Your task to perform on an android device: move an email to a new category in the gmail app Image 0: 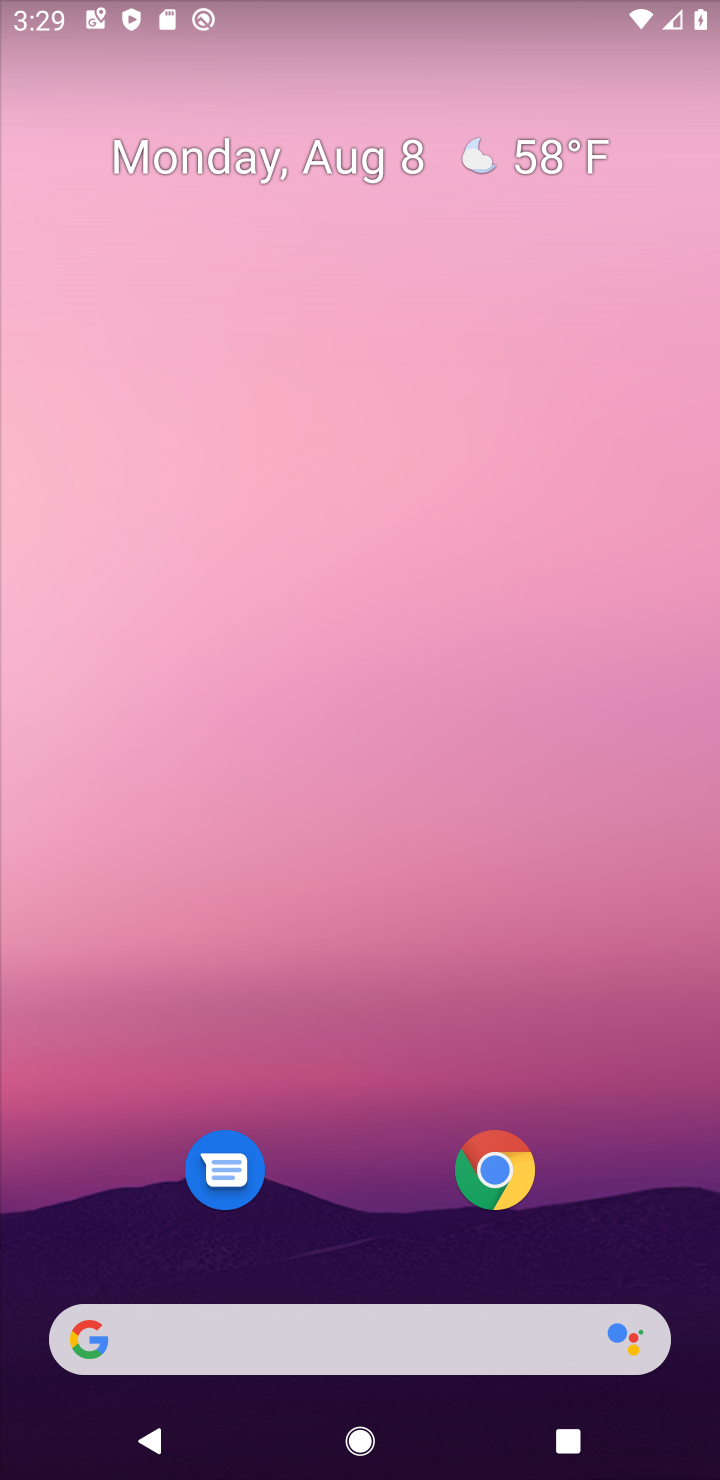
Step 0: drag from (341, 1054) to (481, 403)
Your task to perform on an android device: move an email to a new category in the gmail app Image 1: 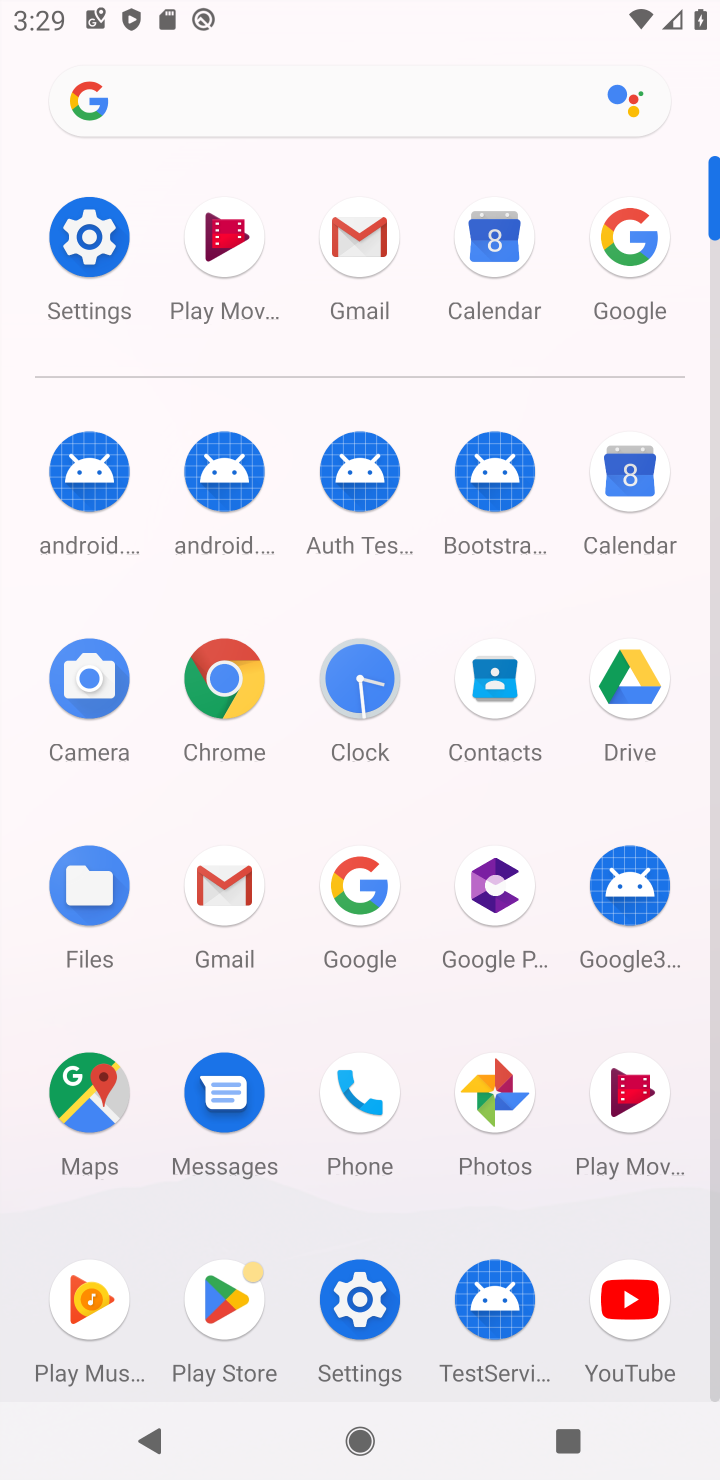
Step 1: click (368, 268)
Your task to perform on an android device: move an email to a new category in the gmail app Image 2: 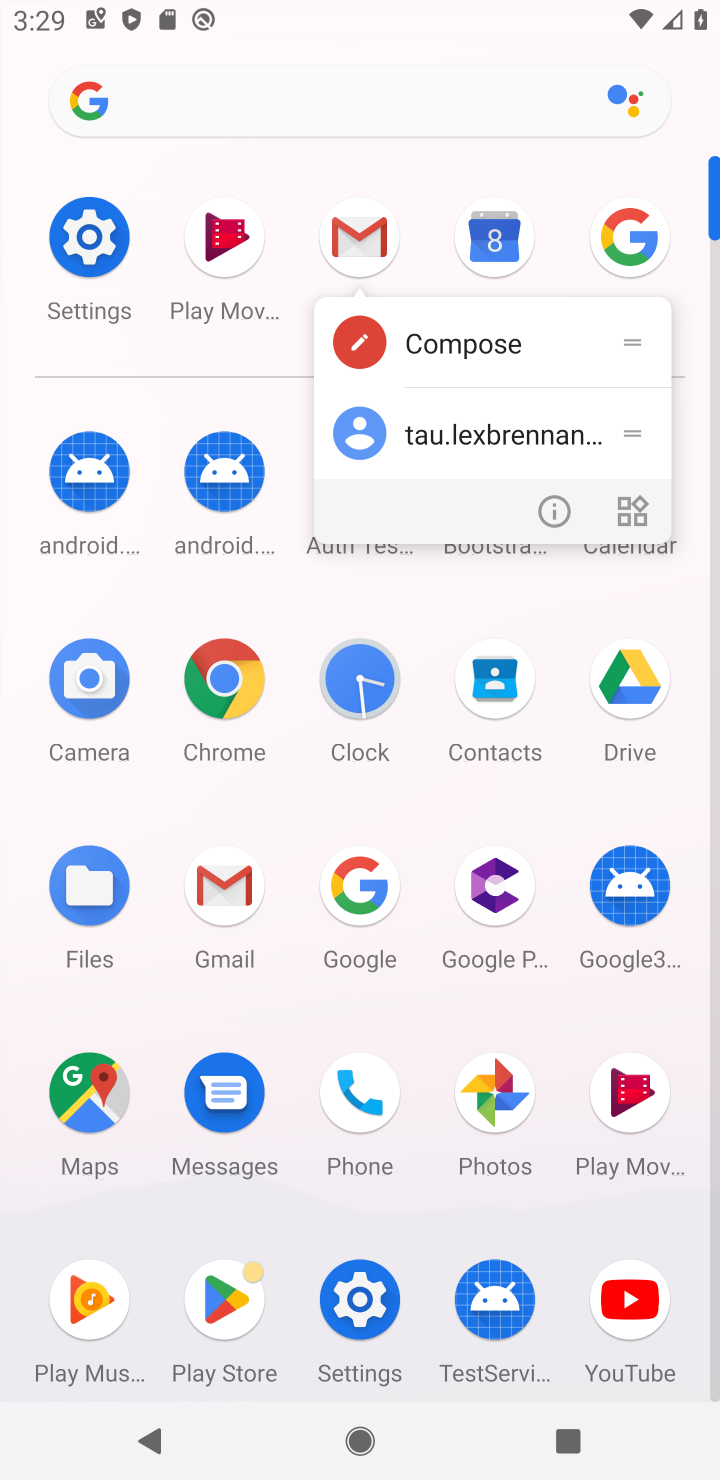
Step 2: click (346, 225)
Your task to perform on an android device: move an email to a new category in the gmail app Image 3: 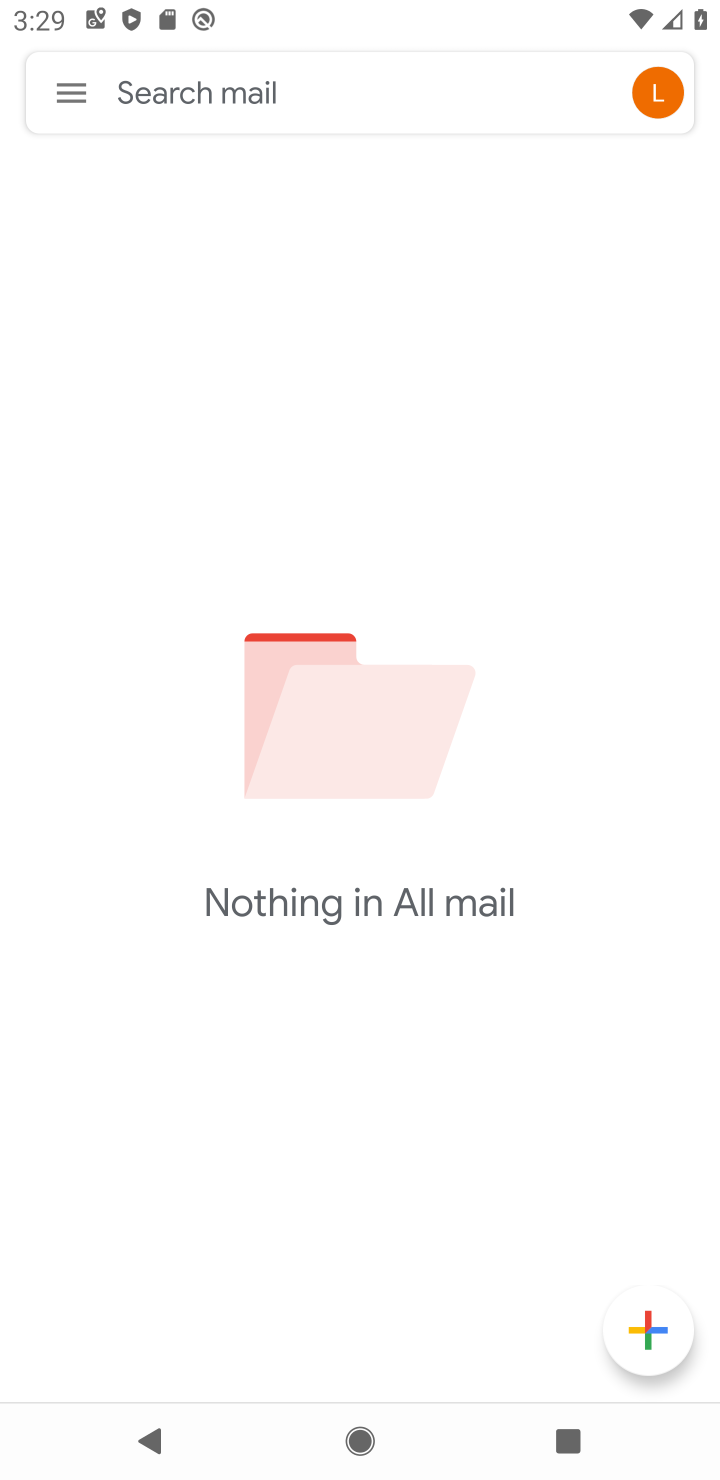
Step 3: click (82, 84)
Your task to perform on an android device: move an email to a new category in the gmail app Image 4: 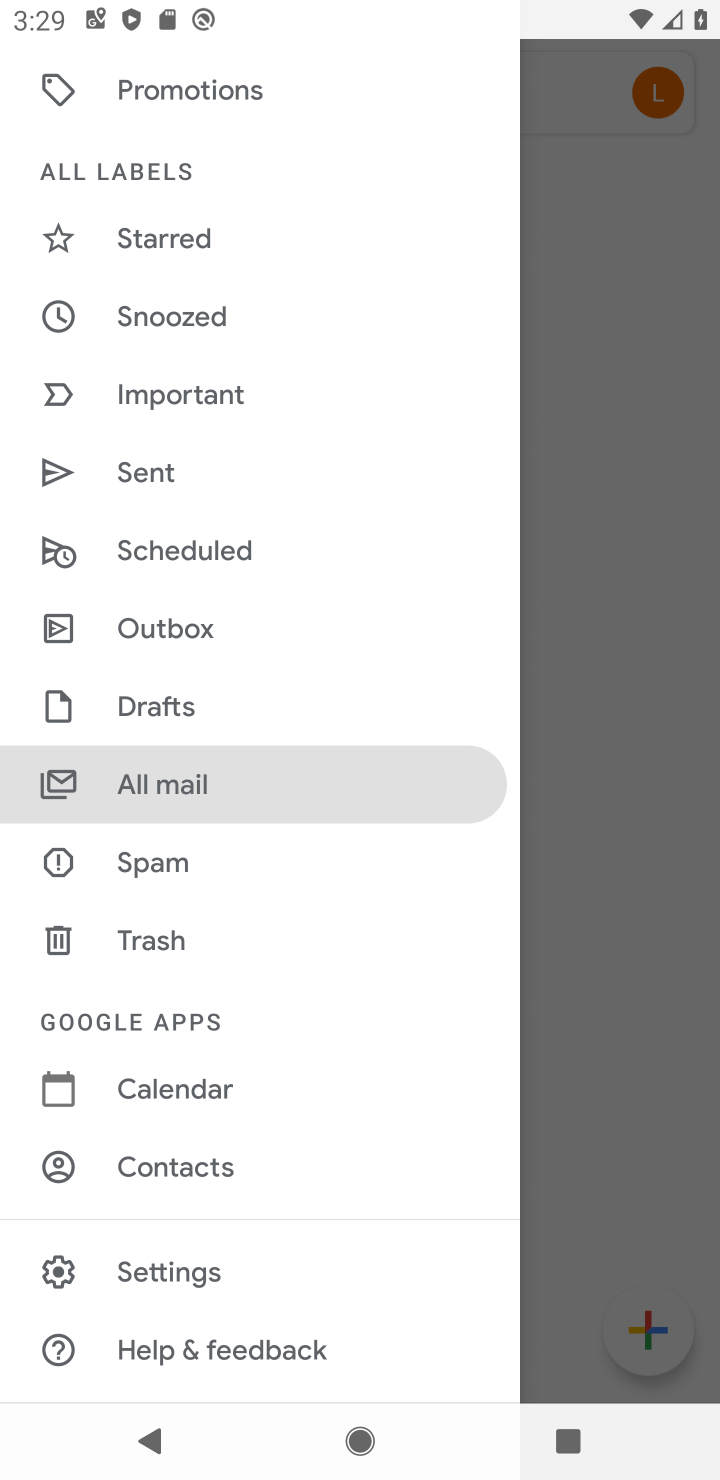
Step 4: click (168, 770)
Your task to perform on an android device: move an email to a new category in the gmail app Image 5: 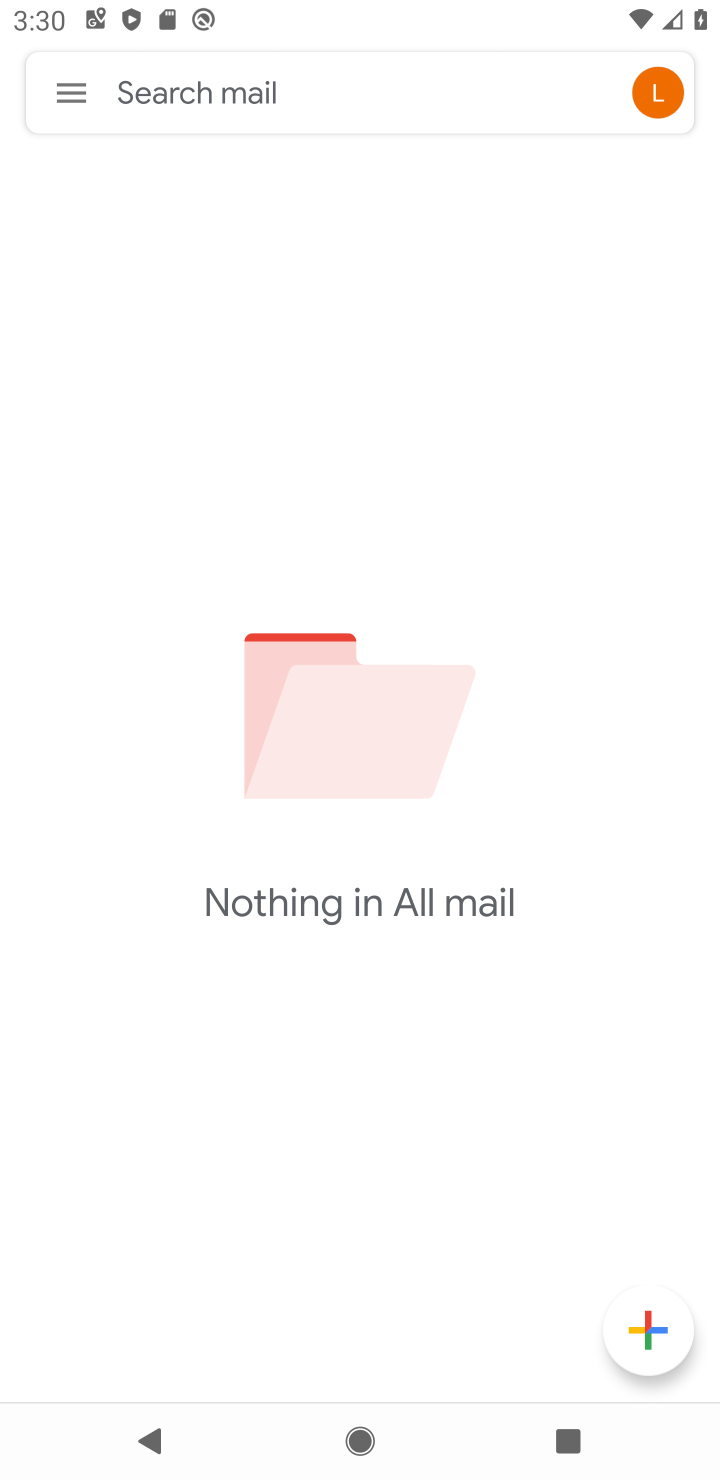
Step 5: task complete